Your task to perform on an android device: manage bookmarks in the chrome app Image 0: 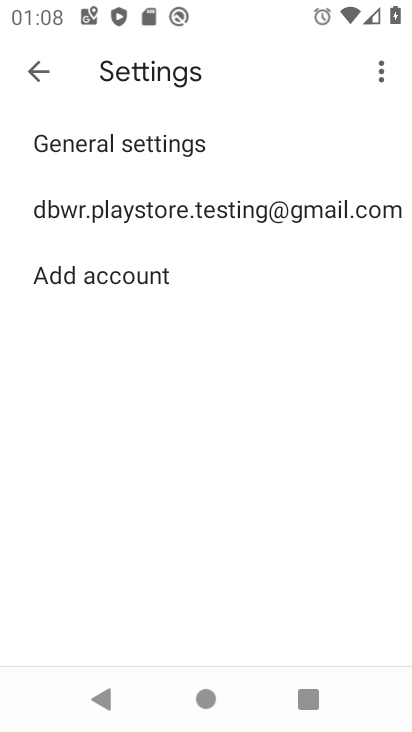
Step 0: press home button
Your task to perform on an android device: manage bookmarks in the chrome app Image 1: 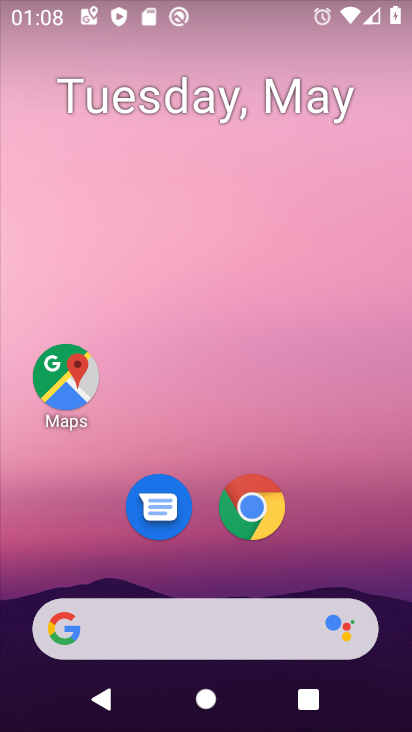
Step 1: drag from (171, 604) to (217, 243)
Your task to perform on an android device: manage bookmarks in the chrome app Image 2: 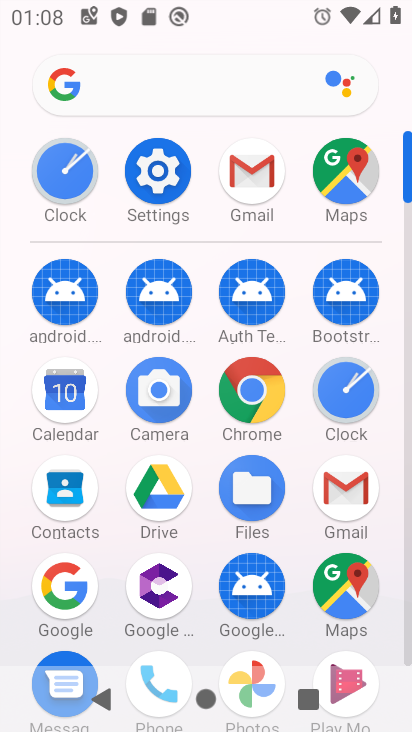
Step 2: click (243, 387)
Your task to perform on an android device: manage bookmarks in the chrome app Image 3: 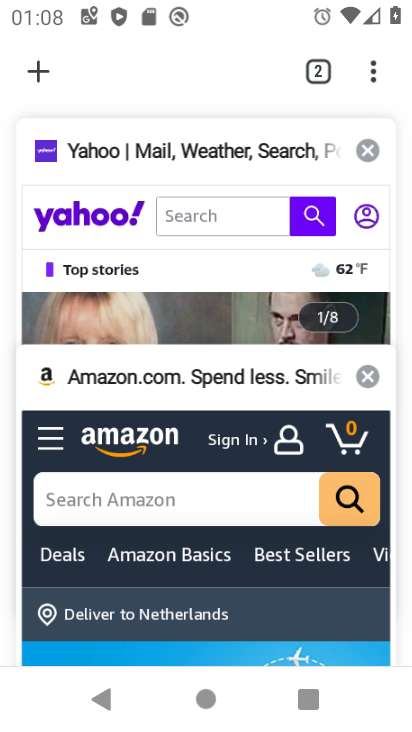
Step 3: click (371, 72)
Your task to perform on an android device: manage bookmarks in the chrome app Image 4: 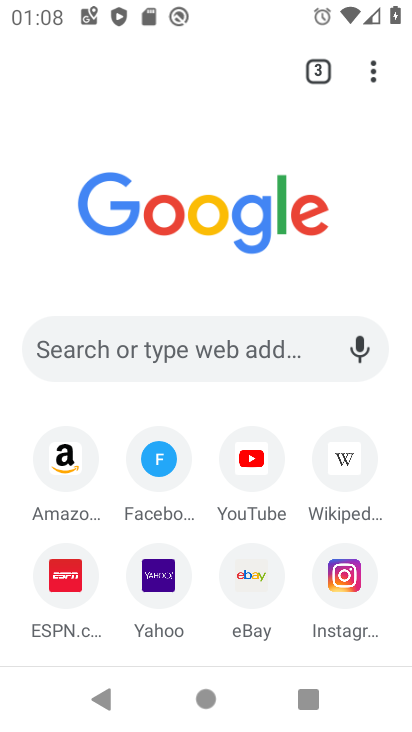
Step 4: click (371, 71)
Your task to perform on an android device: manage bookmarks in the chrome app Image 5: 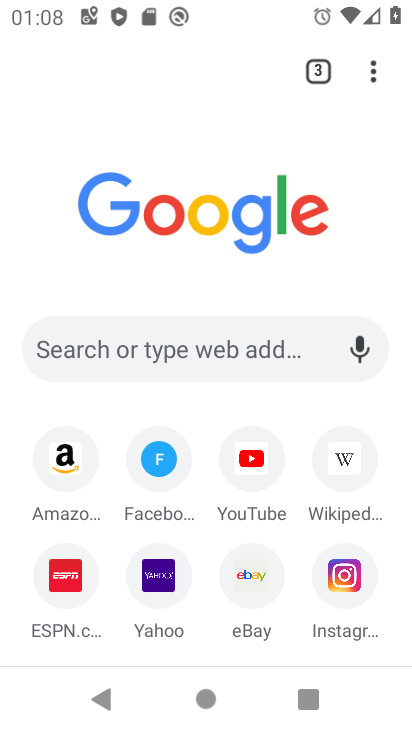
Step 5: click (381, 74)
Your task to perform on an android device: manage bookmarks in the chrome app Image 6: 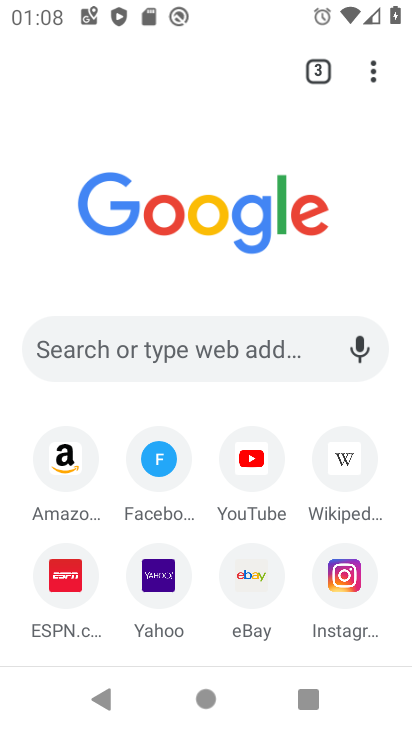
Step 6: click (366, 74)
Your task to perform on an android device: manage bookmarks in the chrome app Image 7: 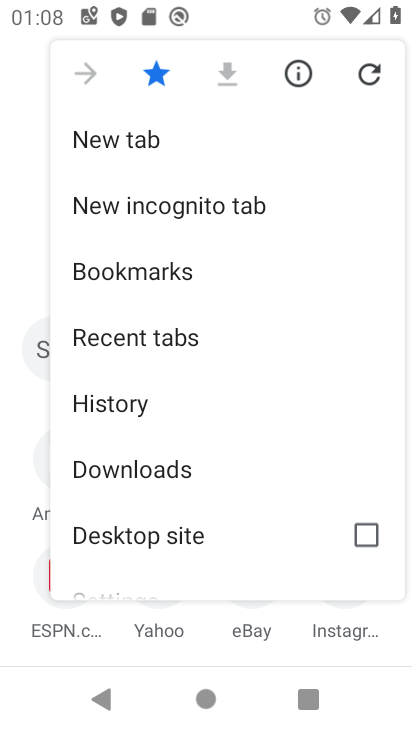
Step 7: drag from (107, 541) to (87, 293)
Your task to perform on an android device: manage bookmarks in the chrome app Image 8: 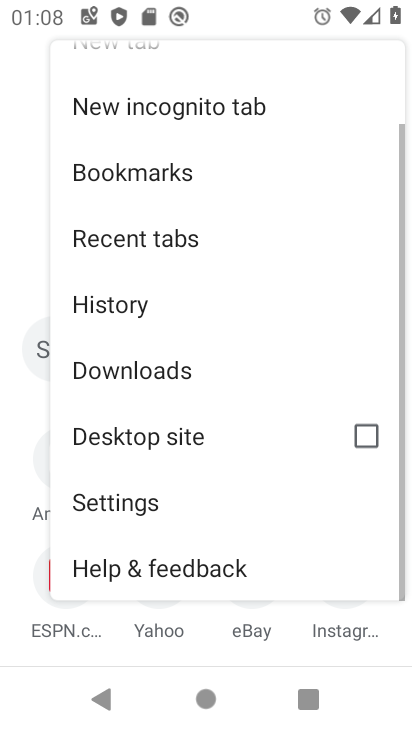
Step 8: click (95, 181)
Your task to perform on an android device: manage bookmarks in the chrome app Image 9: 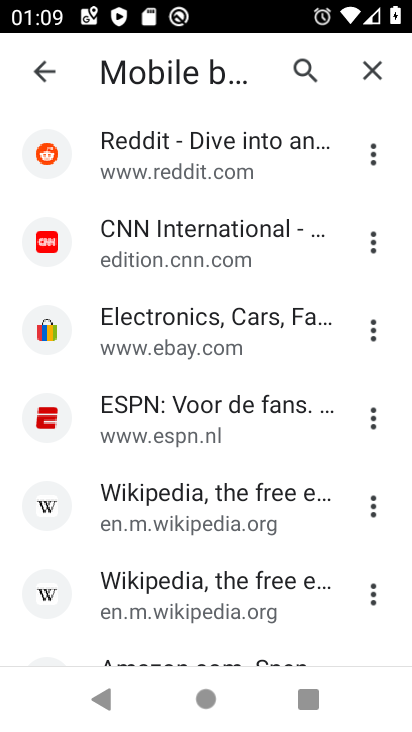
Step 9: click (134, 584)
Your task to perform on an android device: manage bookmarks in the chrome app Image 10: 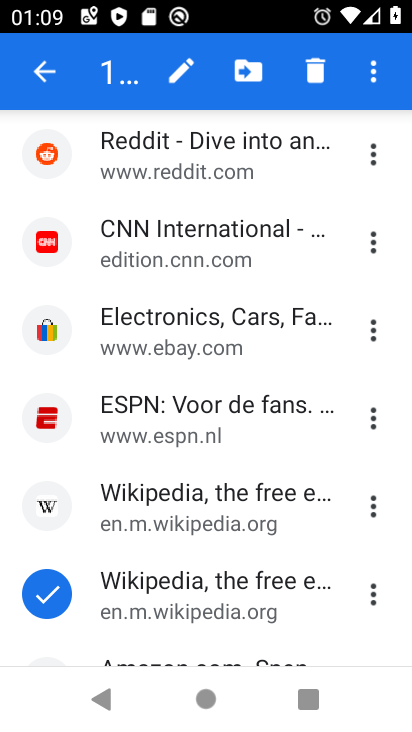
Step 10: click (318, 70)
Your task to perform on an android device: manage bookmarks in the chrome app Image 11: 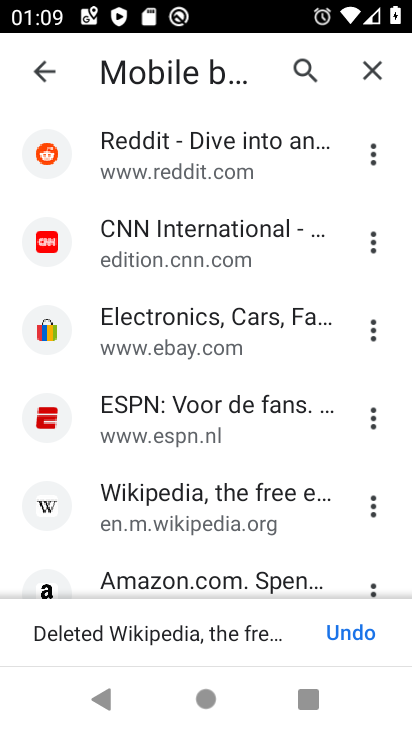
Step 11: drag from (223, 577) to (204, 315)
Your task to perform on an android device: manage bookmarks in the chrome app Image 12: 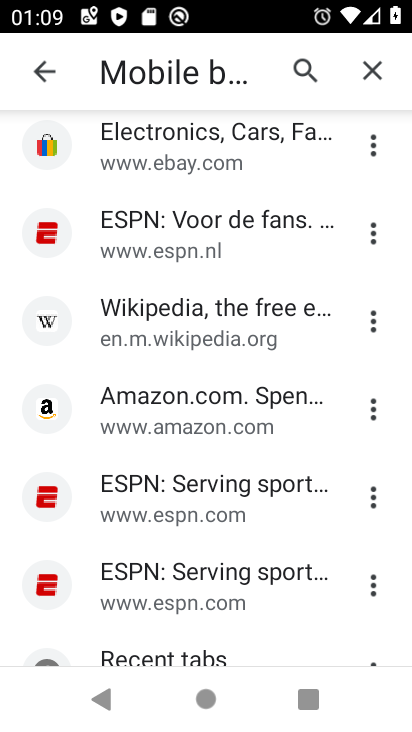
Step 12: click (136, 581)
Your task to perform on an android device: manage bookmarks in the chrome app Image 13: 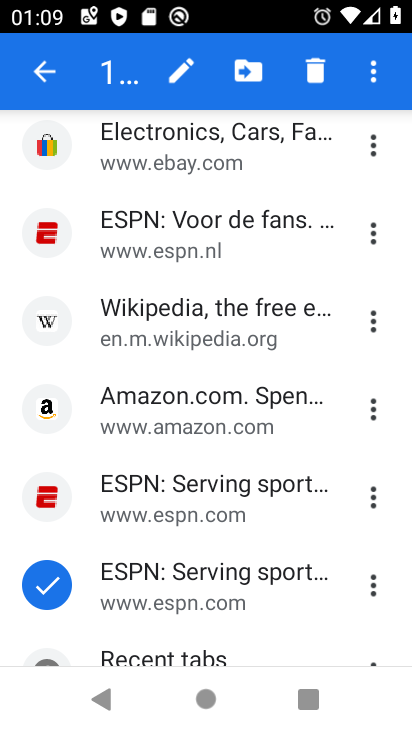
Step 13: click (316, 68)
Your task to perform on an android device: manage bookmarks in the chrome app Image 14: 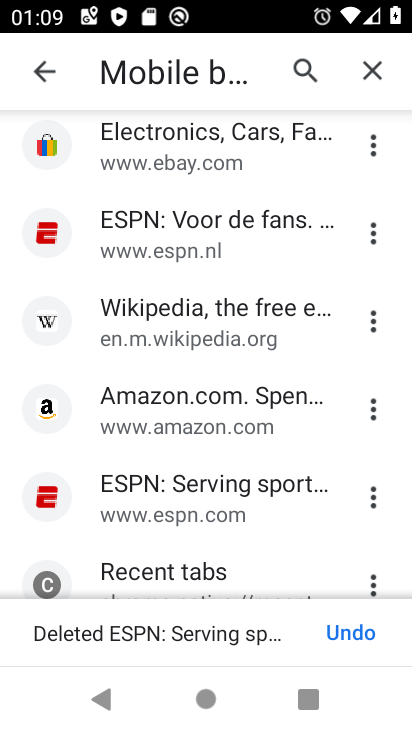
Step 14: task complete